Your task to perform on an android device: Show me recent news Image 0: 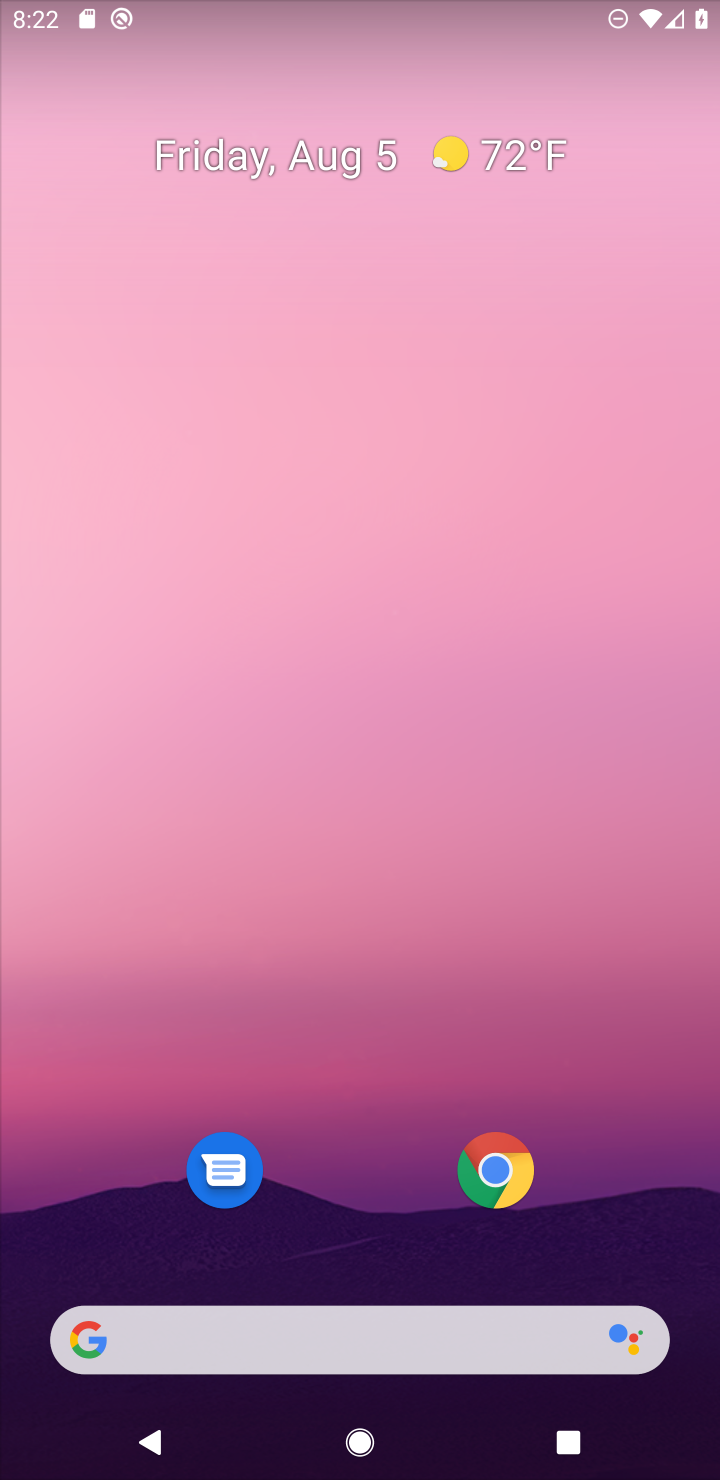
Step 0: drag from (88, 676) to (640, 658)
Your task to perform on an android device: Show me recent news Image 1: 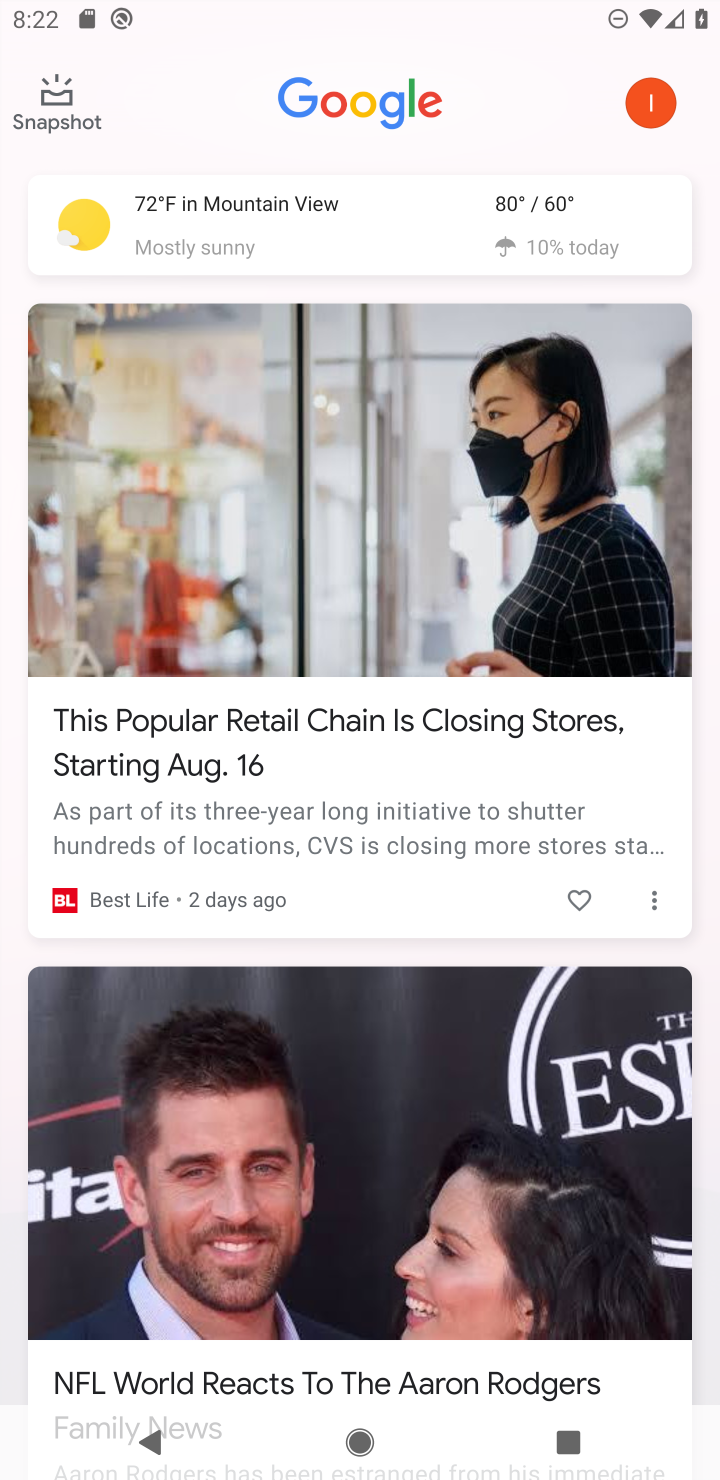
Step 1: task complete